Your task to perform on an android device: toggle notification dots Image 0: 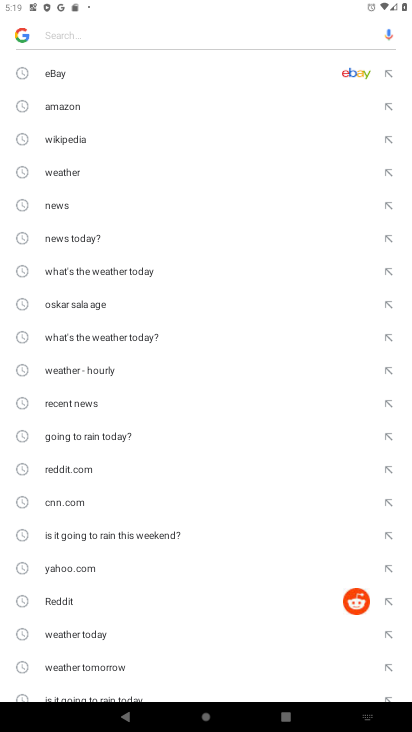
Step 0: press home button
Your task to perform on an android device: toggle notification dots Image 1: 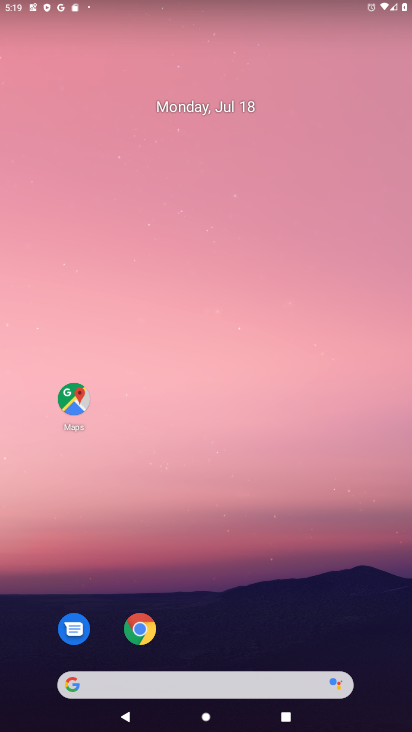
Step 1: drag from (252, 598) to (138, 131)
Your task to perform on an android device: toggle notification dots Image 2: 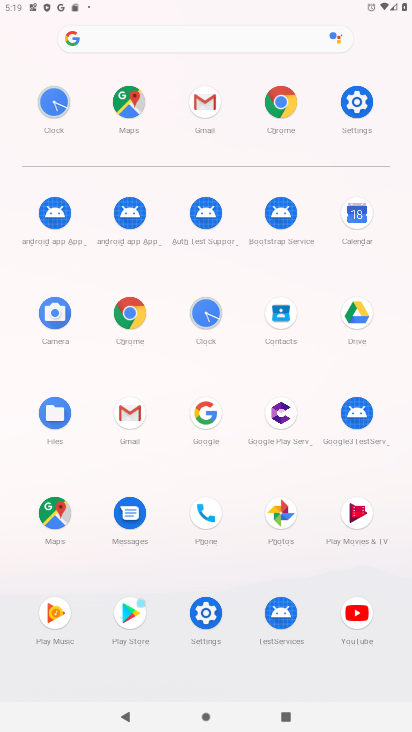
Step 2: click (364, 102)
Your task to perform on an android device: toggle notification dots Image 3: 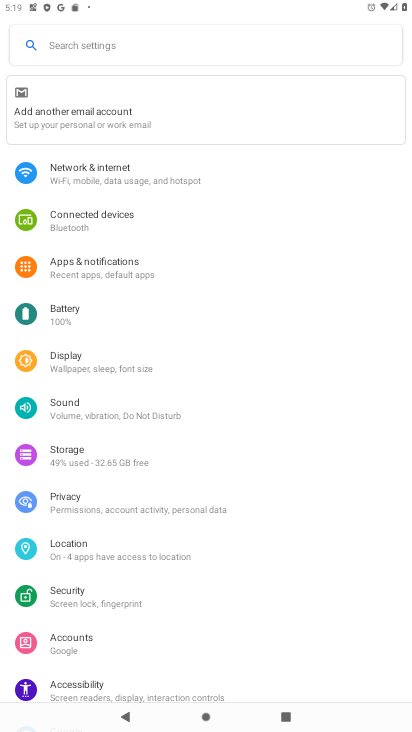
Step 3: click (132, 264)
Your task to perform on an android device: toggle notification dots Image 4: 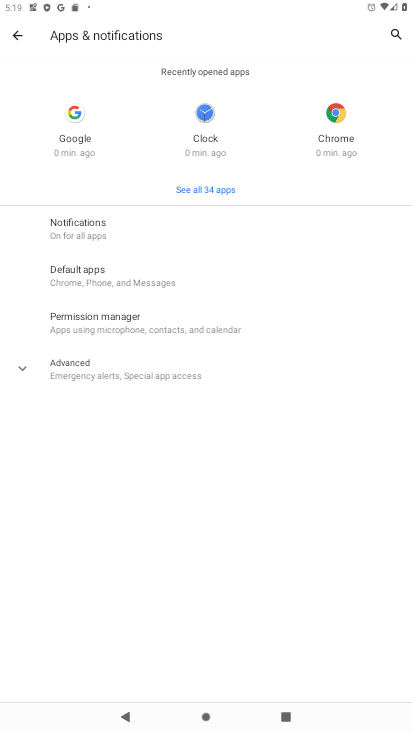
Step 4: click (96, 233)
Your task to perform on an android device: toggle notification dots Image 5: 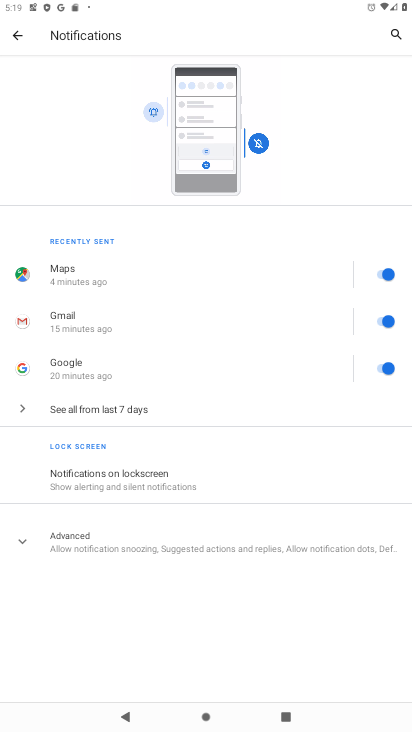
Step 5: click (99, 530)
Your task to perform on an android device: toggle notification dots Image 6: 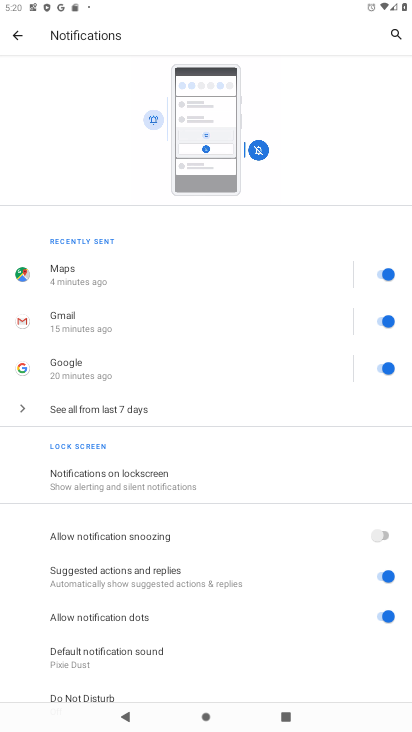
Step 6: click (380, 619)
Your task to perform on an android device: toggle notification dots Image 7: 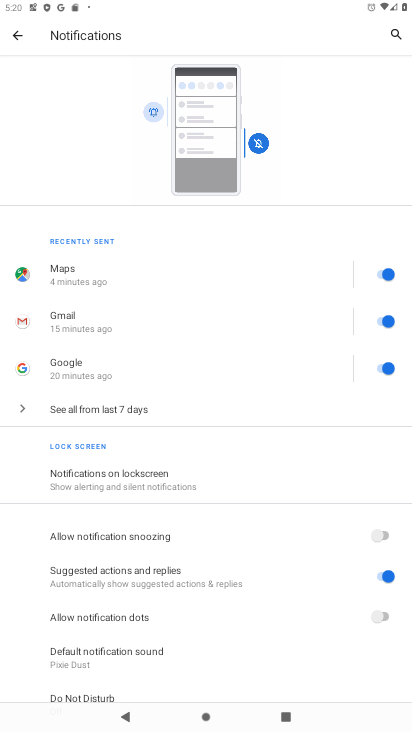
Step 7: task complete